Your task to perform on an android device: Open Amazon Image 0: 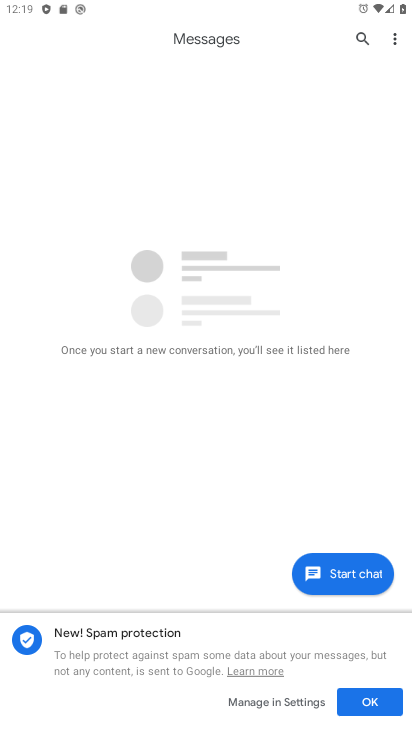
Step 0: press home button
Your task to perform on an android device: Open Amazon Image 1: 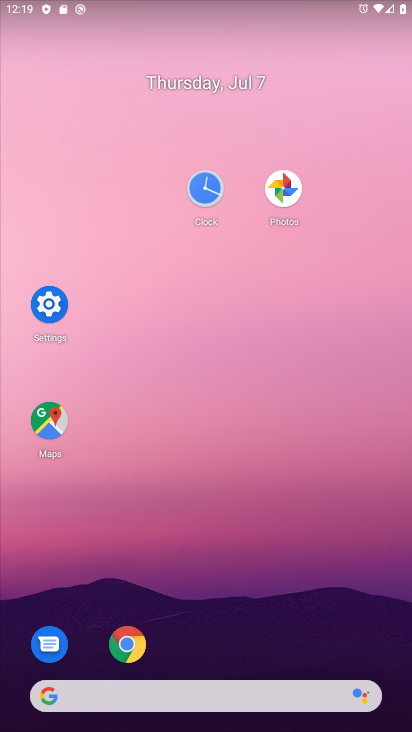
Step 1: click (133, 650)
Your task to perform on an android device: Open Amazon Image 2: 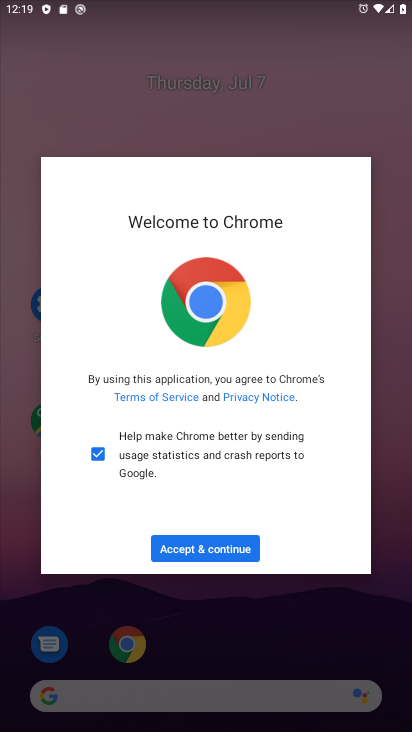
Step 2: click (205, 549)
Your task to perform on an android device: Open Amazon Image 3: 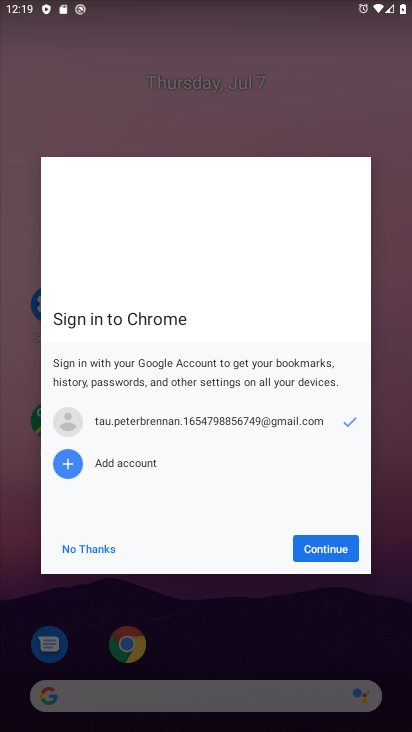
Step 3: click (314, 558)
Your task to perform on an android device: Open Amazon Image 4: 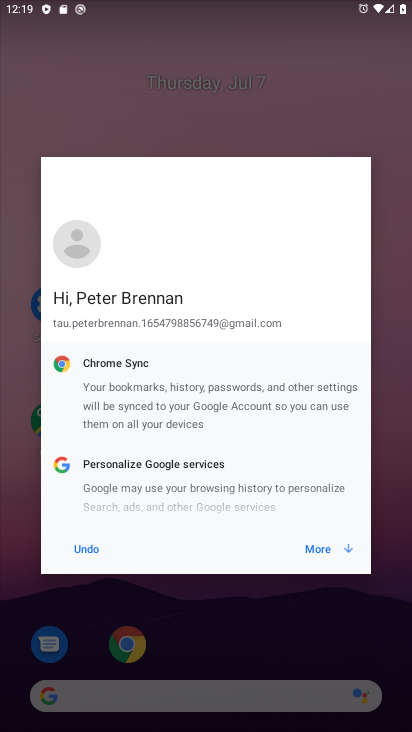
Step 4: click (323, 555)
Your task to perform on an android device: Open Amazon Image 5: 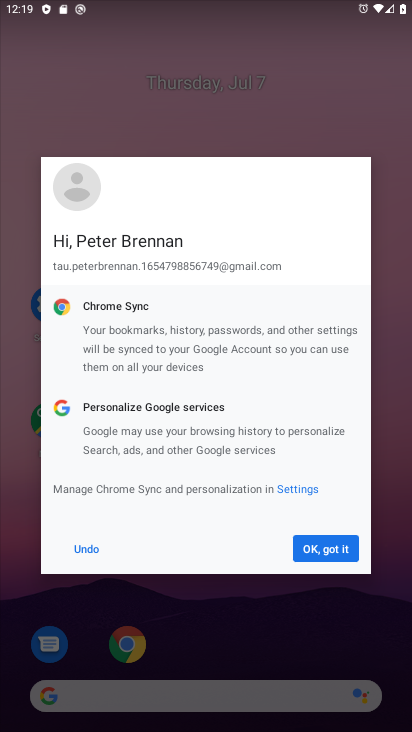
Step 5: click (323, 550)
Your task to perform on an android device: Open Amazon Image 6: 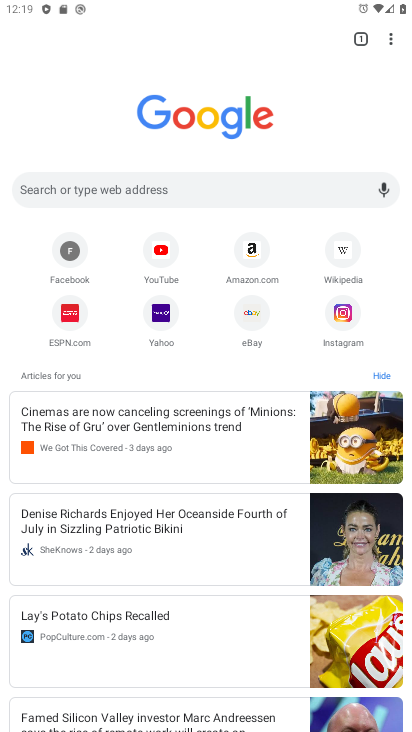
Step 6: click (242, 255)
Your task to perform on an android device: Open Amazon Image 7: 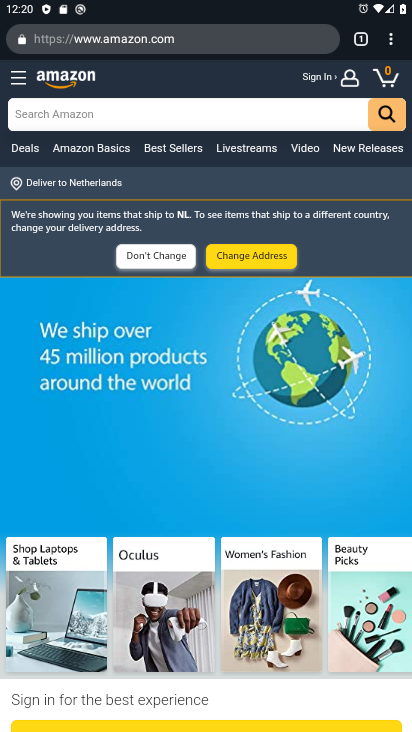
Step 7: task complete